Your task to perform on an android device: Open Google Maps Image 0: 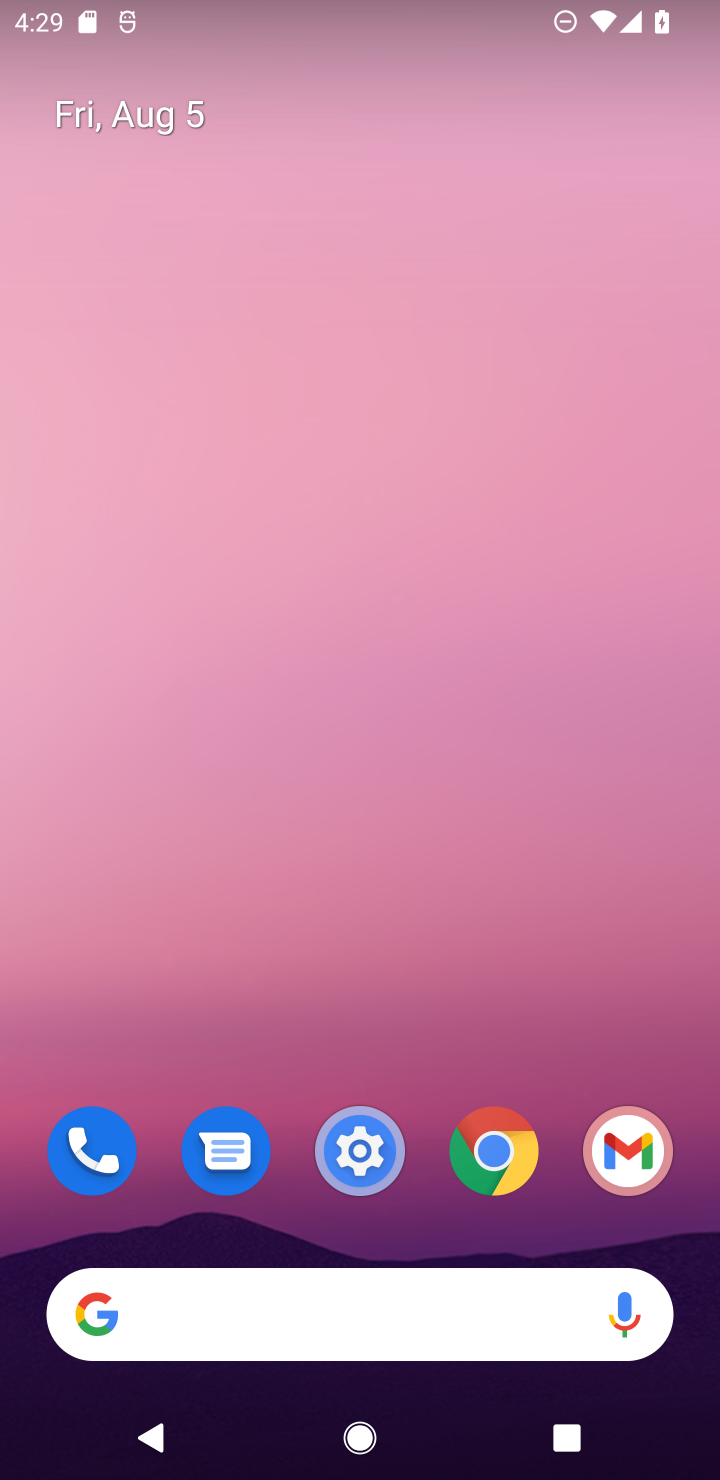
Step 0: press home button
Your task to perform on an android device: Open Google Maps Image 1: 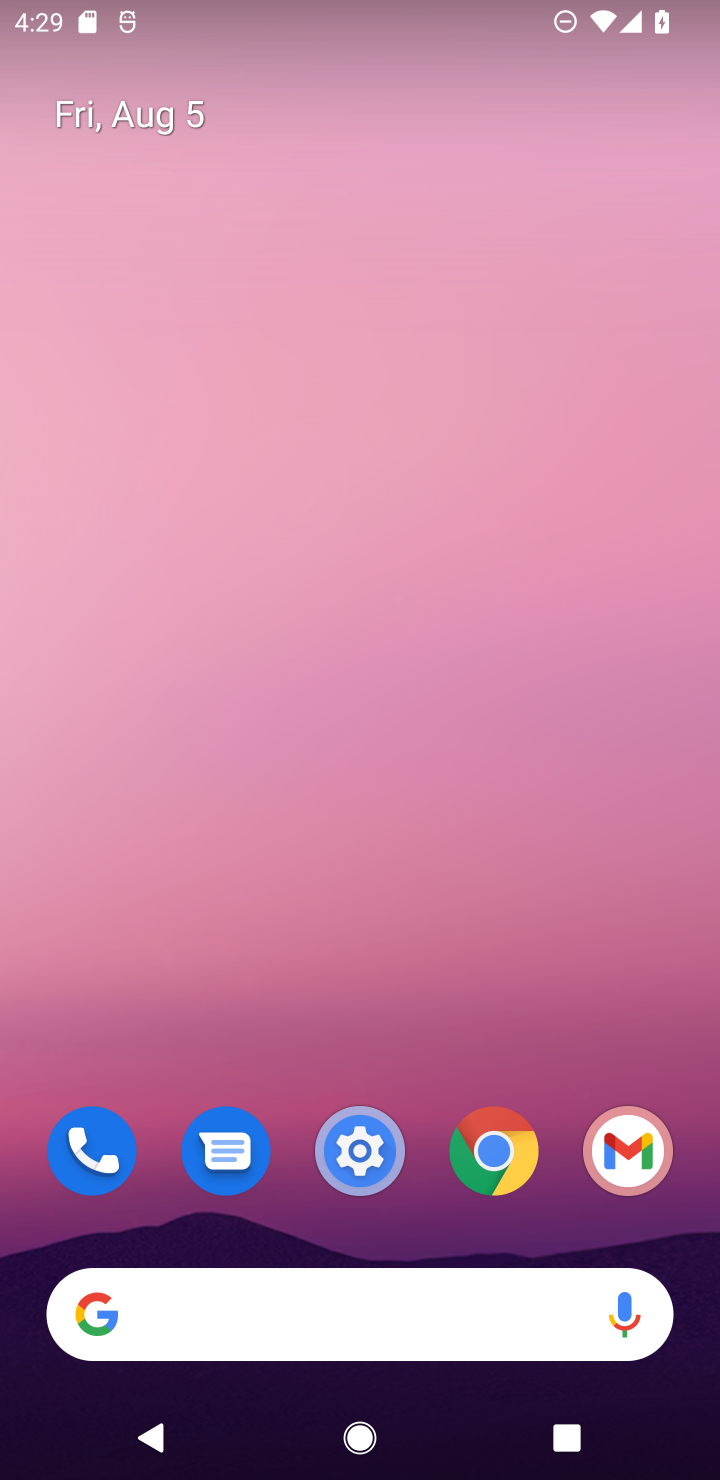
Step 1: drag from (365, 1038) to (414, 379)
Your task to perform on an android device: Open Google Maps Image 2: 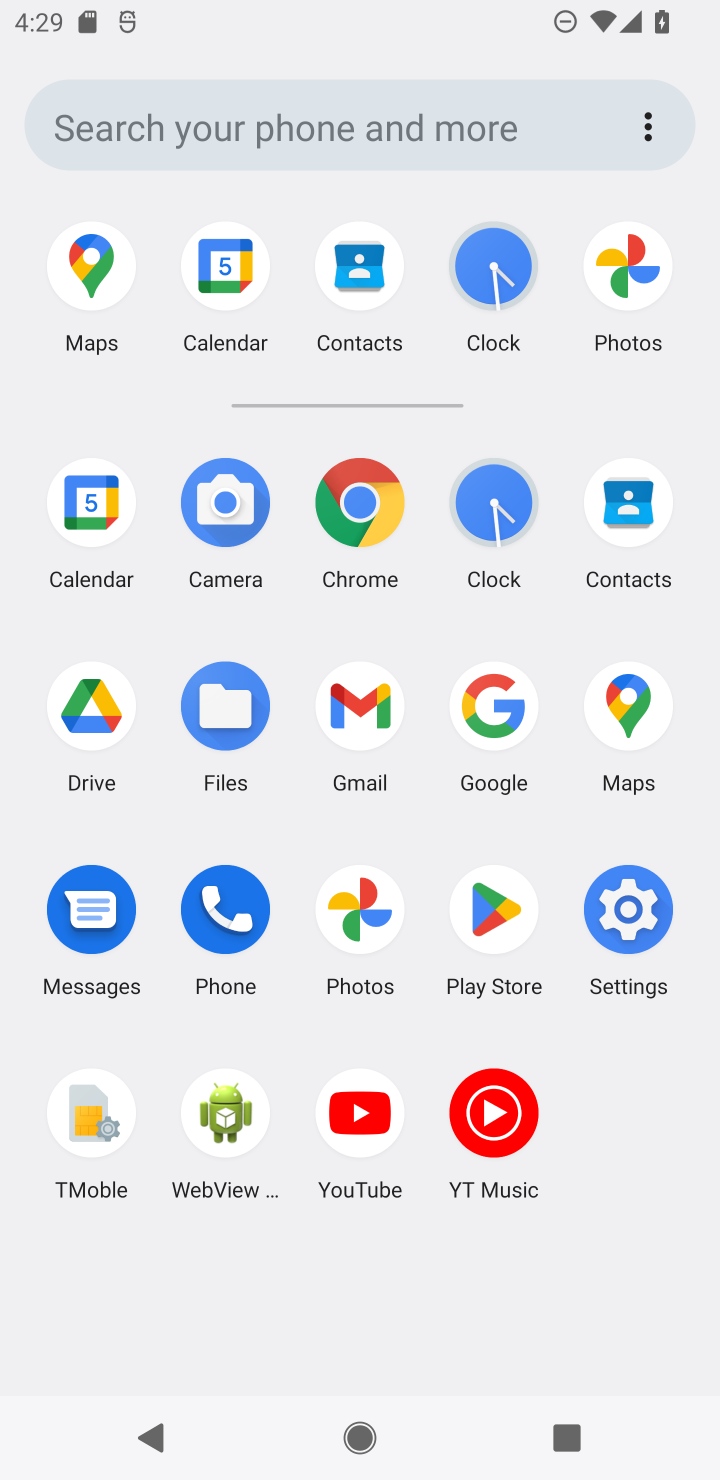
Step 2: click (626, 700)
Your task to perform on an android device: Open Google Maps Image 3: 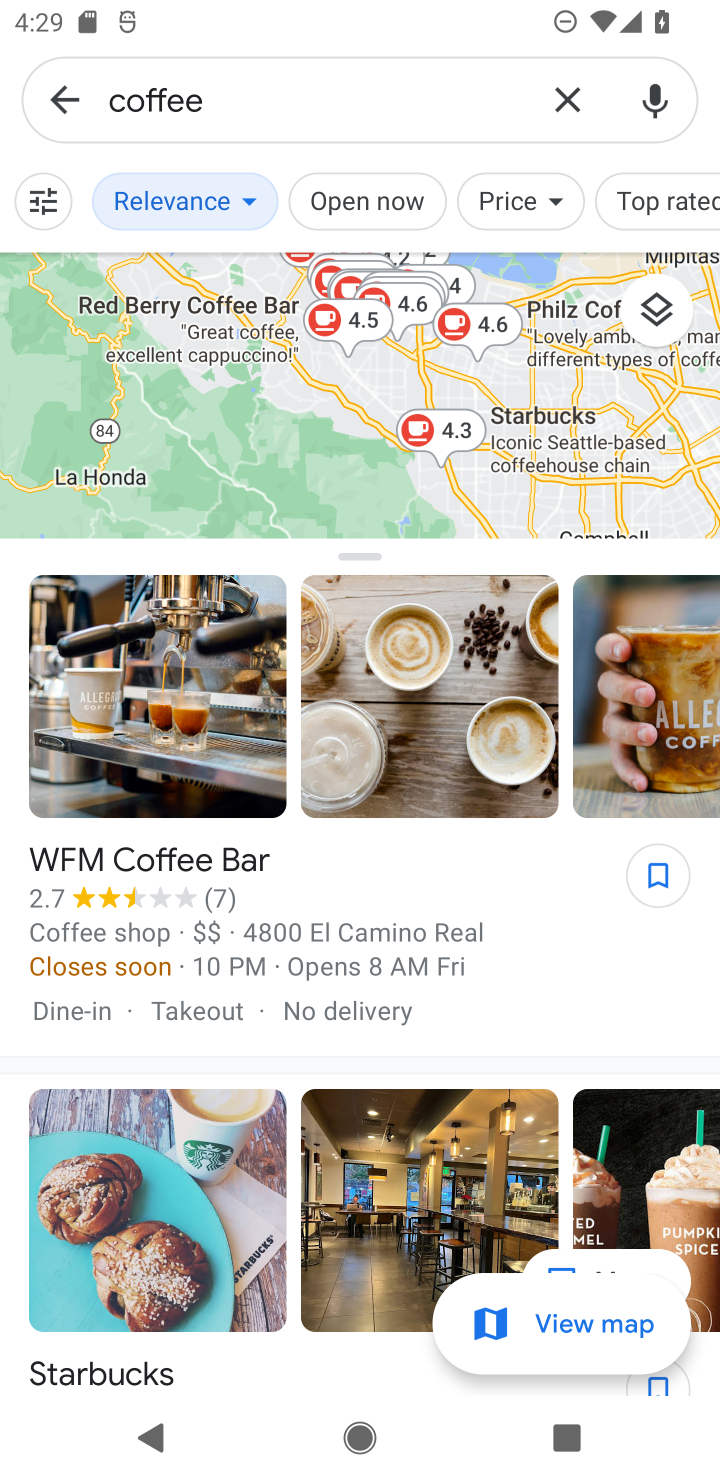
Step 3: task complete